Your task to perform on an android device: Add "dell xps" to the cart on ebay, then select checkout. Image 0: 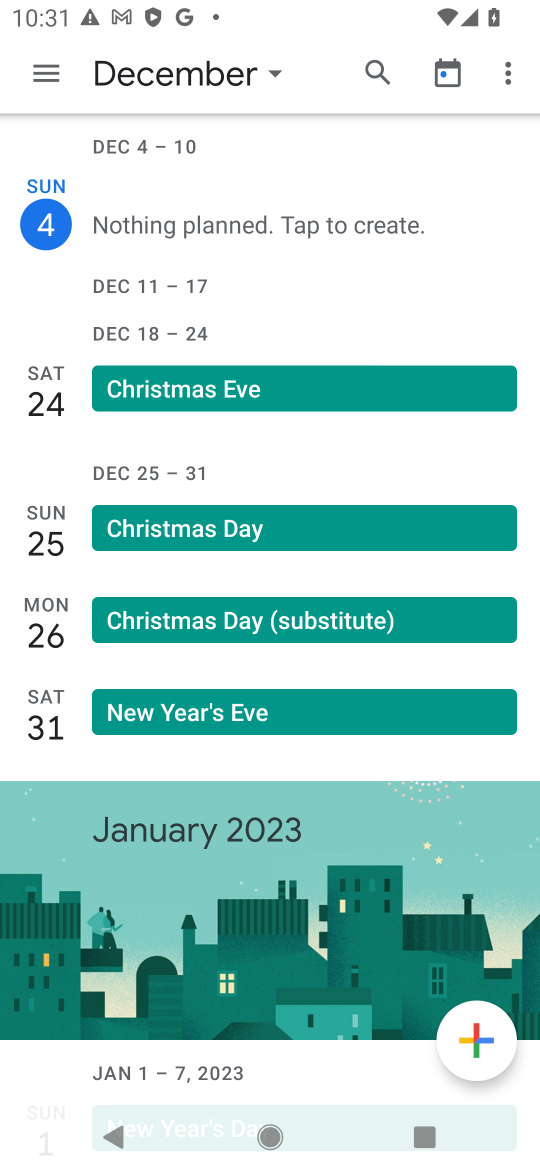
Step 0: press home button
Your task to perform on an android device: Add "dell xps" to the cart on ebay, then select checkout. Image 1: 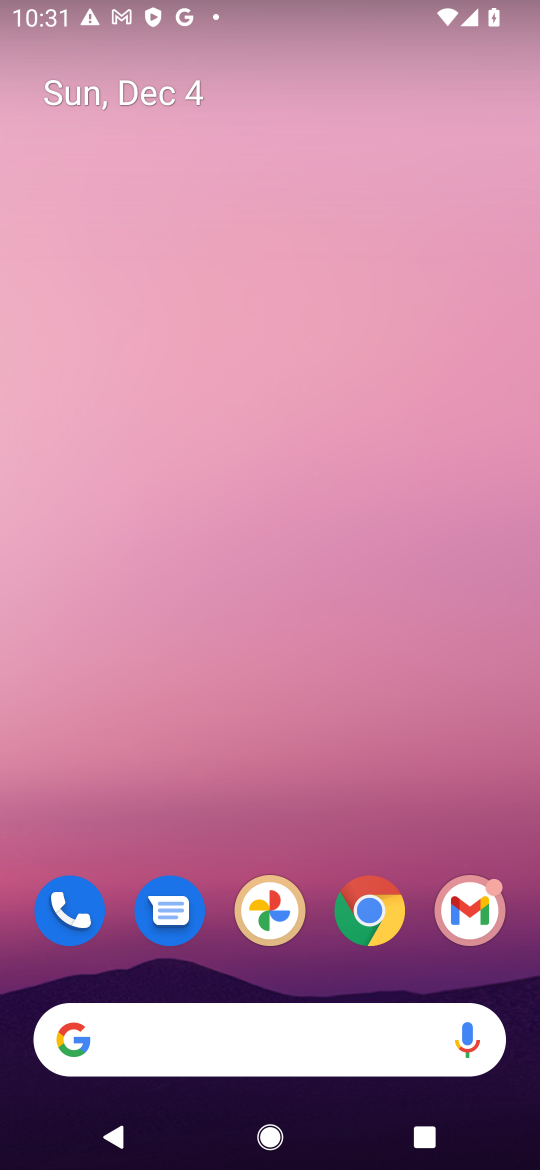
Step 1: drag from (367, 1068) to (325, 58)
Your task to perform on an android device: Add "dell xps" to the cart on ebay, then select checkout. Image 2: 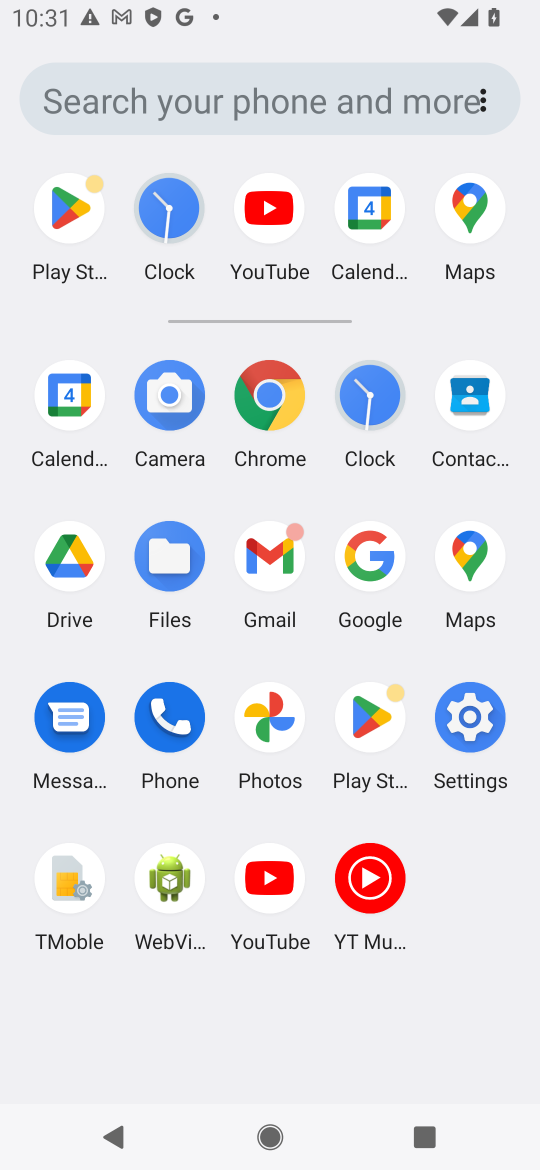
Step 2: click (257, 396)
Your task to perform on an android device: Add "dell xps" to the cart on ebay, then select checkout. Image 3: 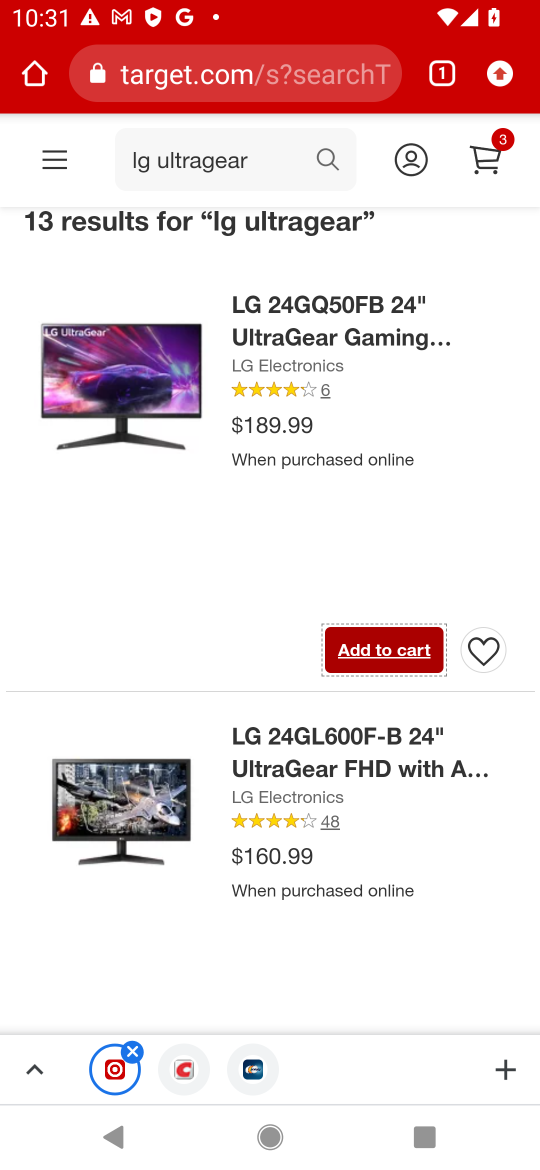
Step 3: click (227, 71)
Your task to perform on an android device: Add "dell xps" to the cart on ebay, then select checkout. Image 4: 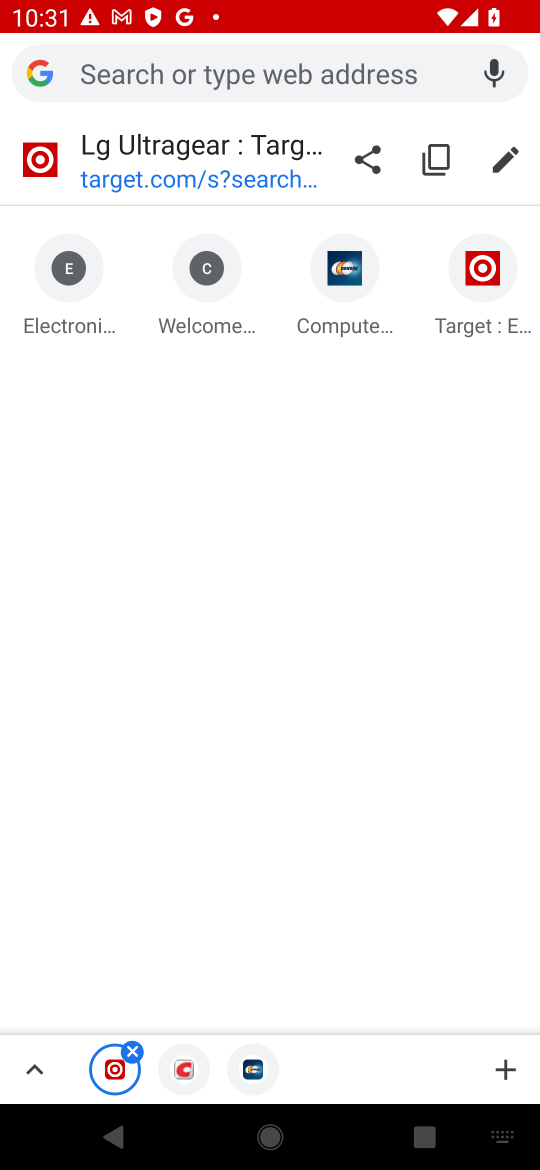
Step 4: type "ebay"
Your task to perform on an android device: Add "dell xps" to the cart on ebay, then select checkout. Image 5: 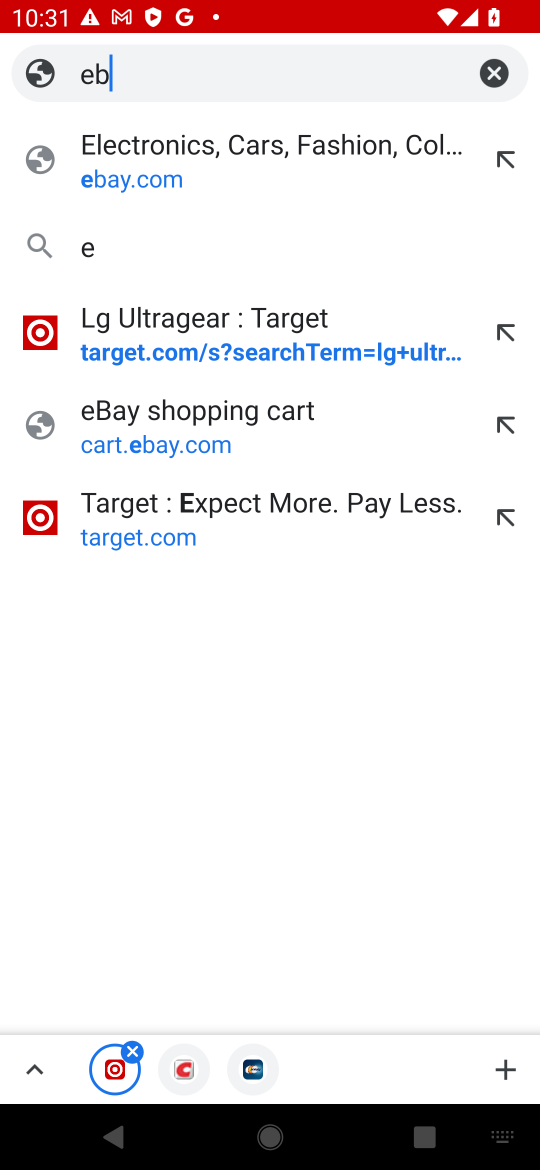
Step 5: type ""
Your task to perform on an android device: Add "dell xps" to the cart on ebay, then select checkout. Image 6: 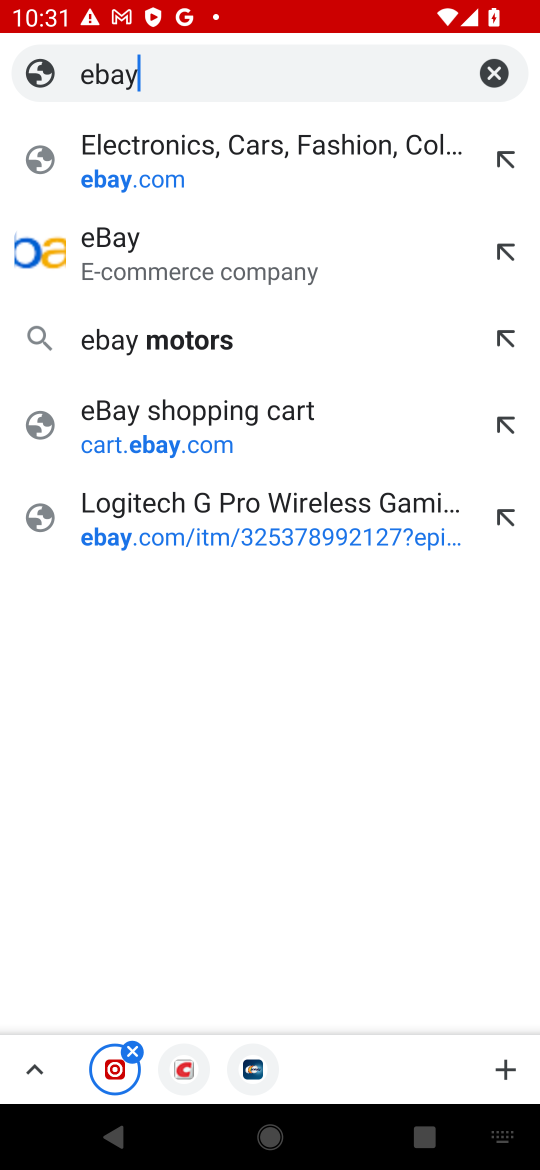
Step 6: click (145, 178)
Your task to perform on an android device: Add "dell xps" to the cart on ebay, then select checkout. Image 7: 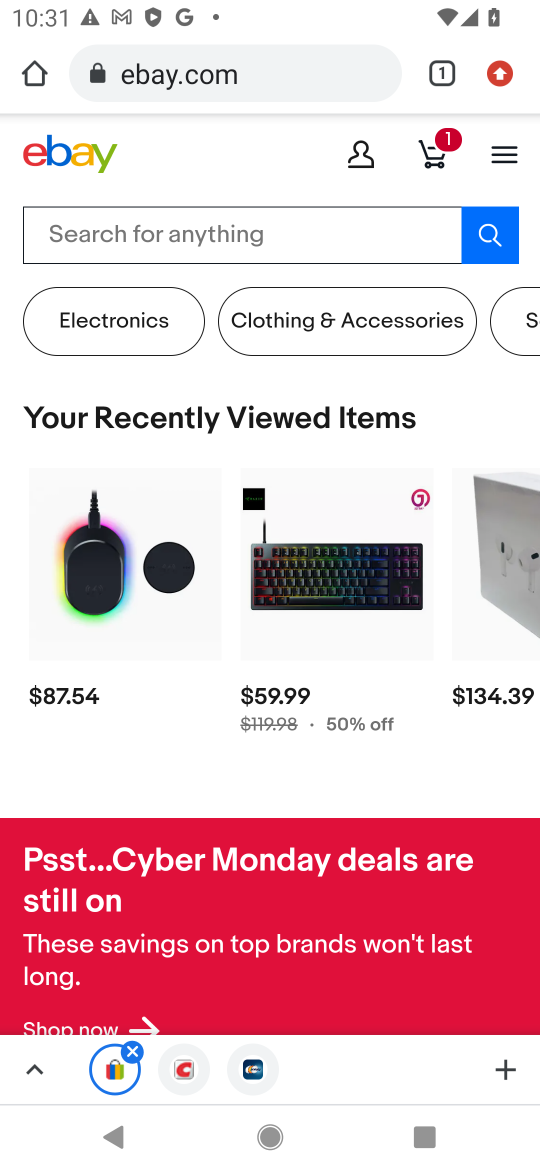
Step 7: click (225, 229)
Your task to perform on an android device: Add "dell xps" to the cart on ebay, then select checkout. Image 8: 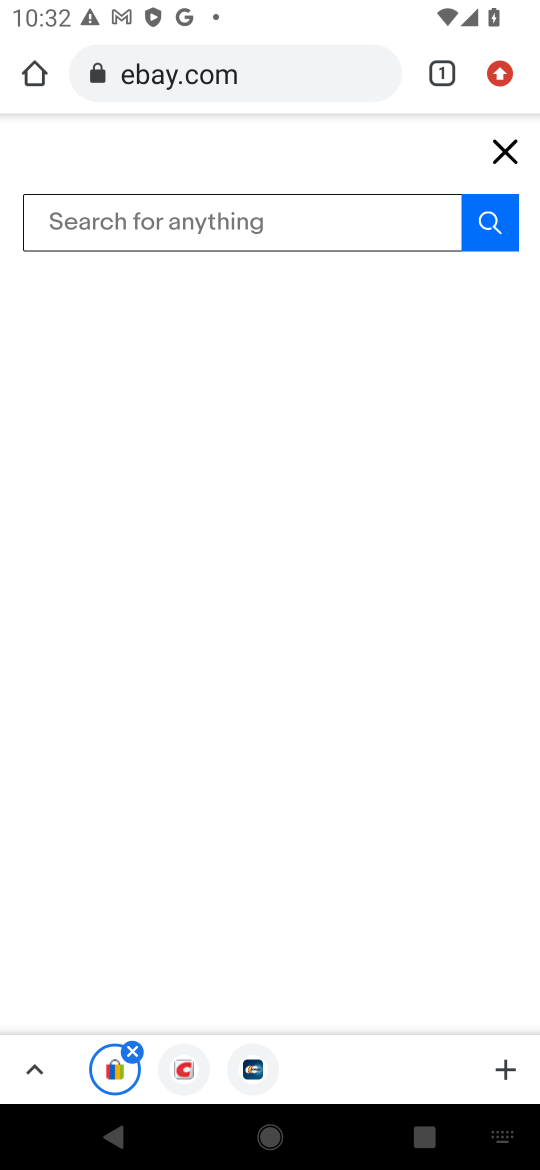
Step 8: type "dell xps"
Your task to perform on an android device: Add "dell xps" to the cart on ebay, then select checkout. Image 9: 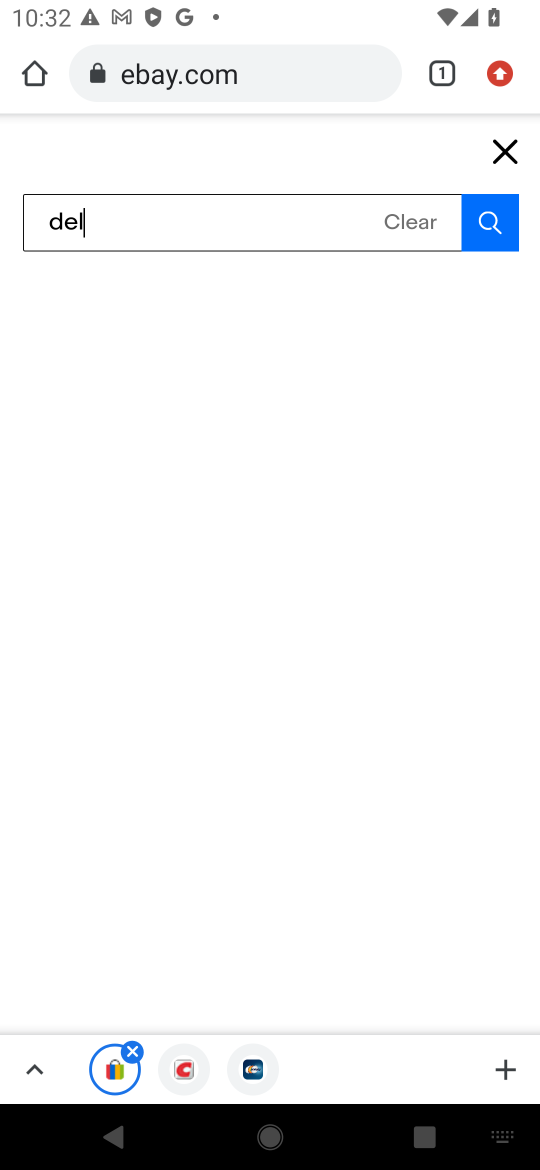
Step 9: type ""
Your task to perform on an android device: Add "dell xps" to the cart on ebay, then select checkout. Image 10: 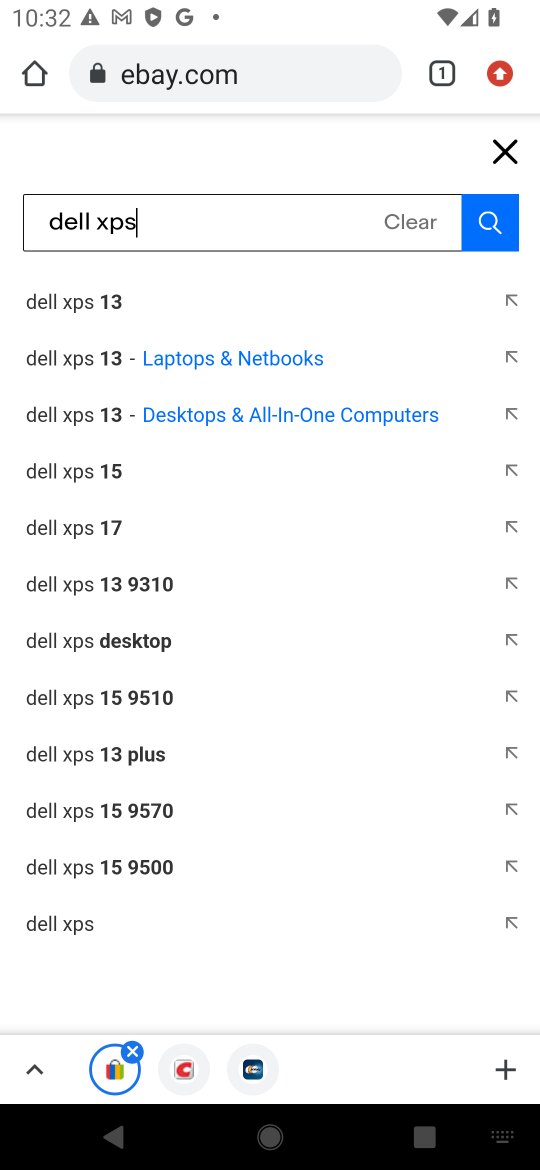
Step 10: click (58, 921)
Your task to perform on an android device: Add "dell xps" to the cart on ebay, then select checkout. Image 11: 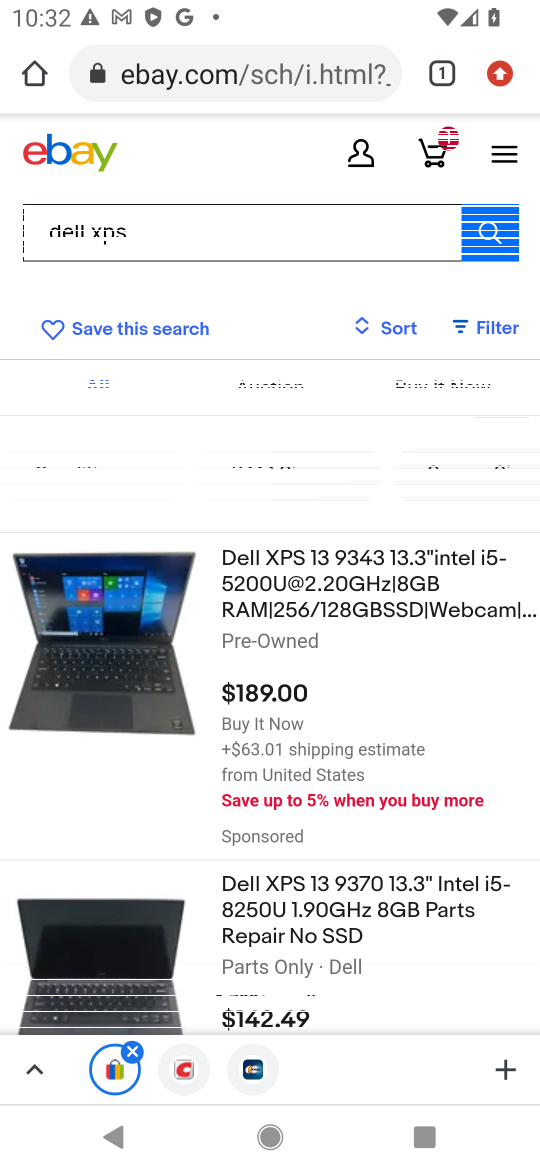
Step 11: click (115, 630)
Your task to perform on an android device: Add "dell xps" to the cart on ebay, then select checkout. Image 12: 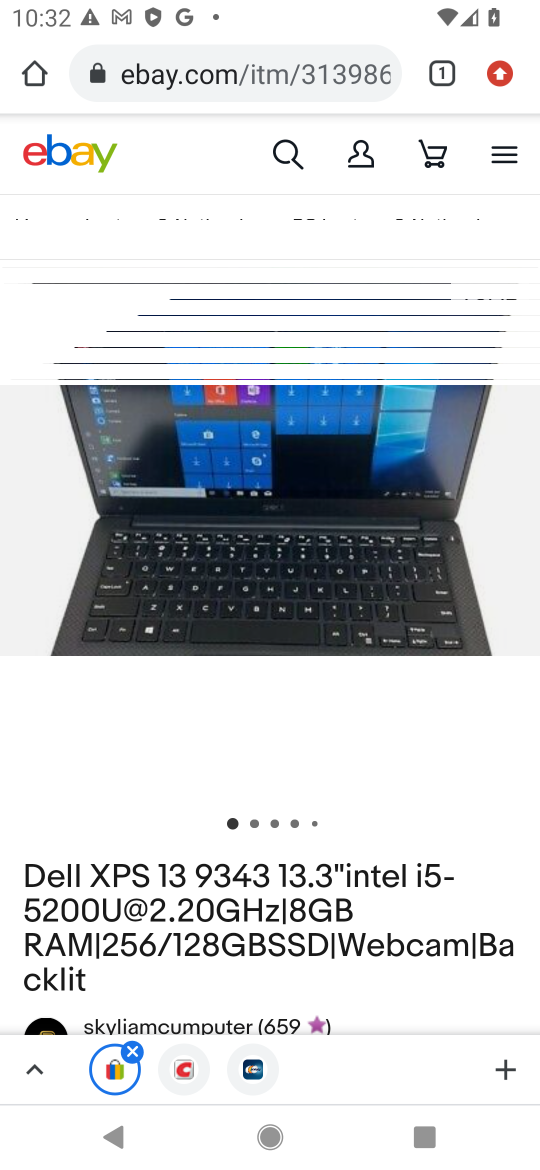
Step 12: drag from (331, 869) to (367, 283)
Your task to perform on an android device: Add "dell xps" to the cart on ebay, then select checkout. Image 13: 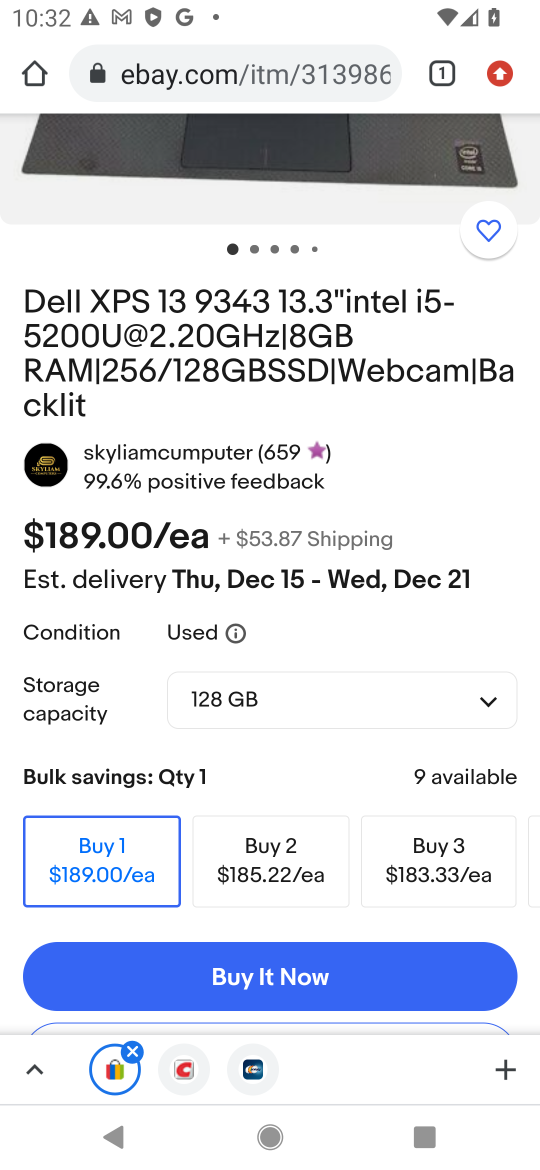
Step 13: drag from (336, 871) to (345, 236)
Your task to perform on an android device: Add "dell xps" to the cart on ebay, then select checkout. Image 14: 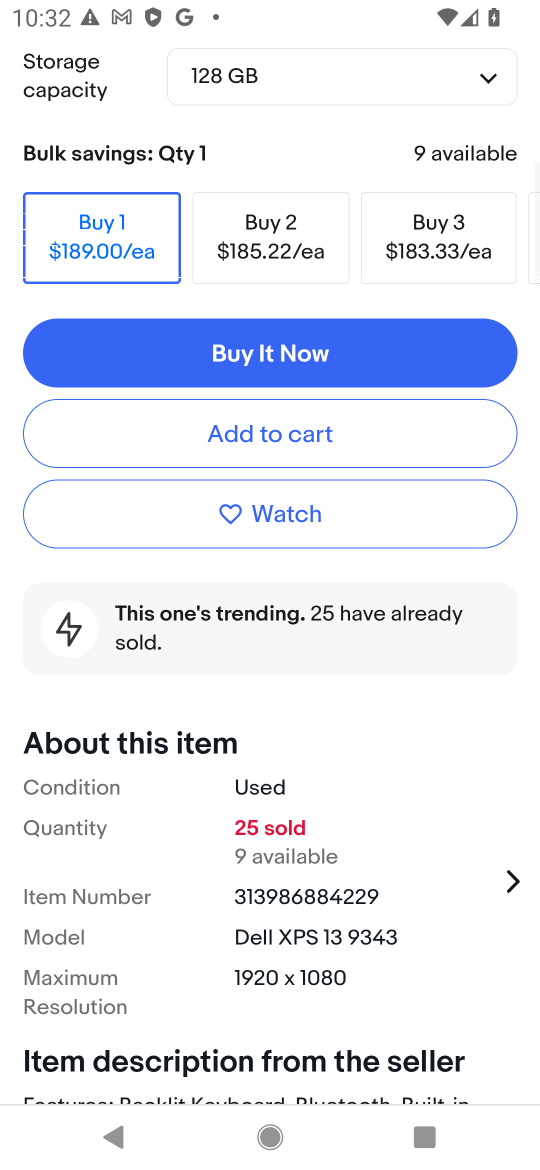
Step 14: click (232, 428)
Your task to perform on an android device: Add "dell xps" to the cart on ebay, then select checkout. Image 15: 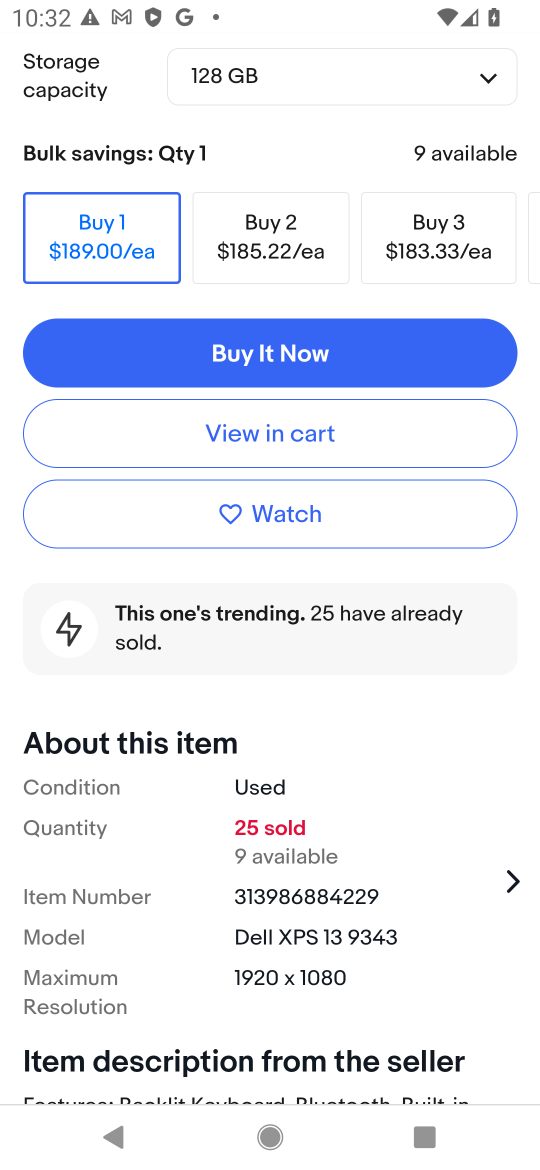
Step 15: task complete